Your task to perform on an android device: Search for vegetarian restaurants on Maps Image 0: 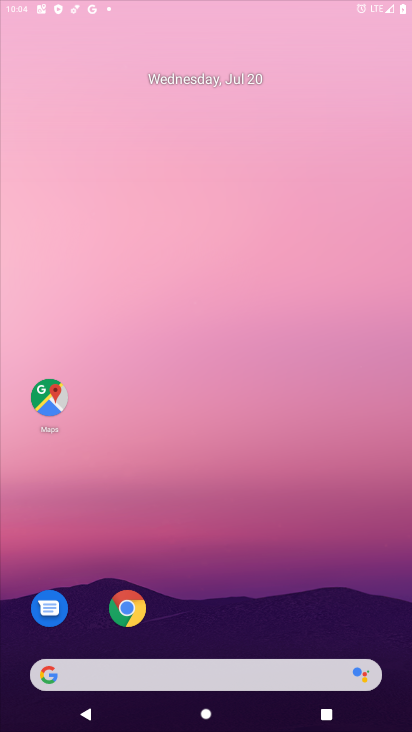
Step 0: press home button
Your task to perform on an android device: Search for vegetarian restaurants on Maps Image 1: 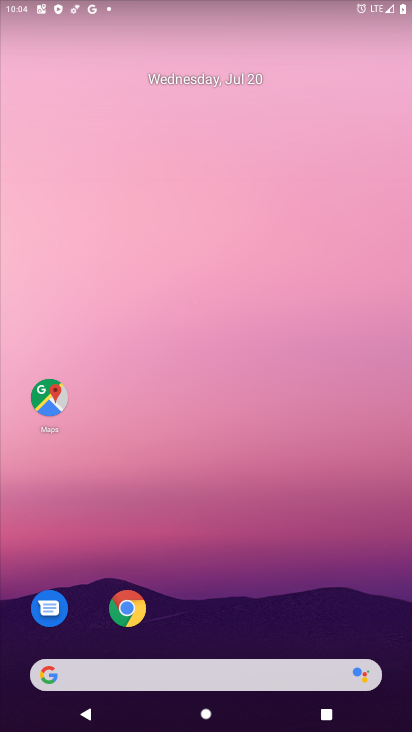
Step 1: click (48, 391)
Your task to perform on an android device: Search for vegetarian restaurants on Maps Image 2: 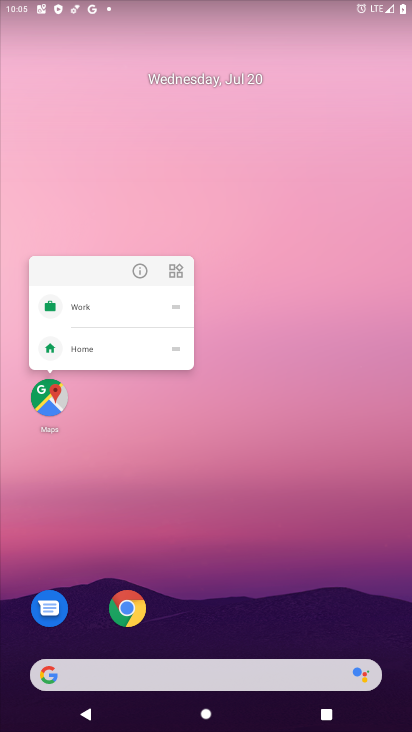
Step 2: click (46, 389)
Your task to perform on an android device: Search for vegetarian restaurants on Maps Image 3: 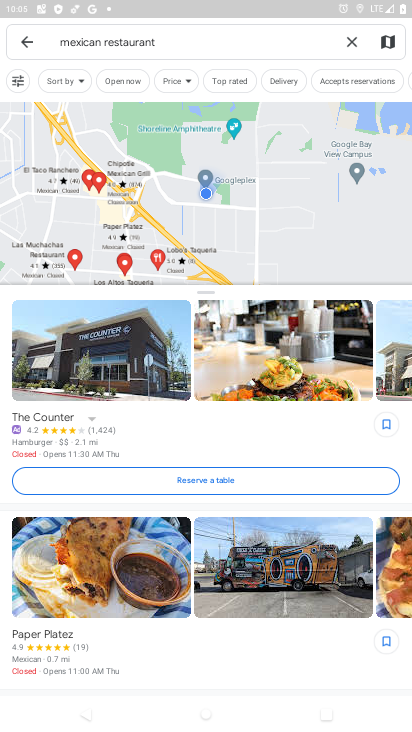
Step 3: click (351, 42)
Your task to perform on an android device: Search for vegetarian restaurants on Maps Image 4: 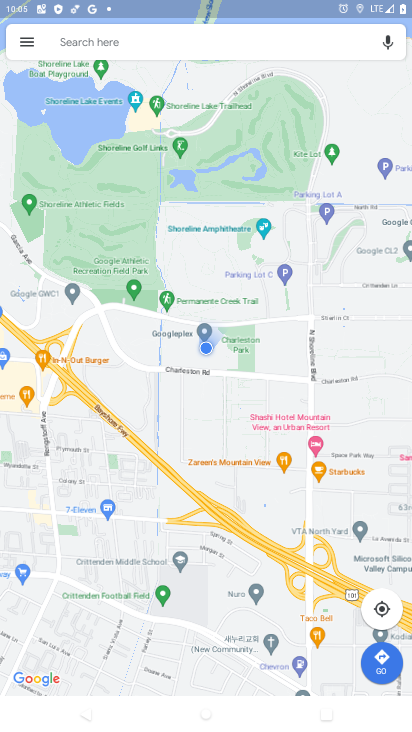
Step 4: click (112, 36)
Your task to perform on an android device: Search for vegetarian restaurants on Maps Image 5: 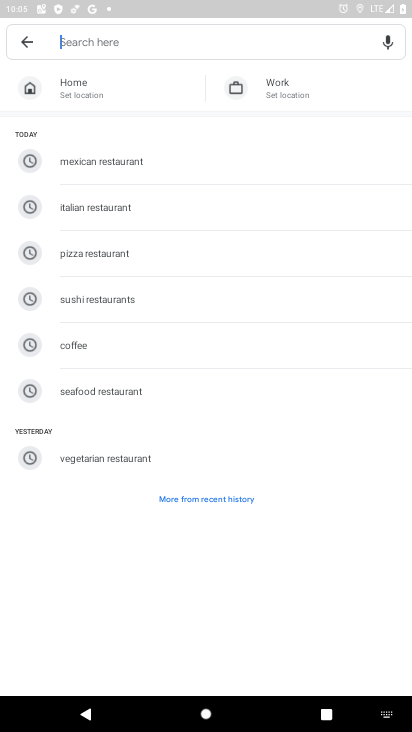
Step 5: click (109, 457)
Your task to perform on an android device: Search for vegetarian restaurants on Maps Image 6: 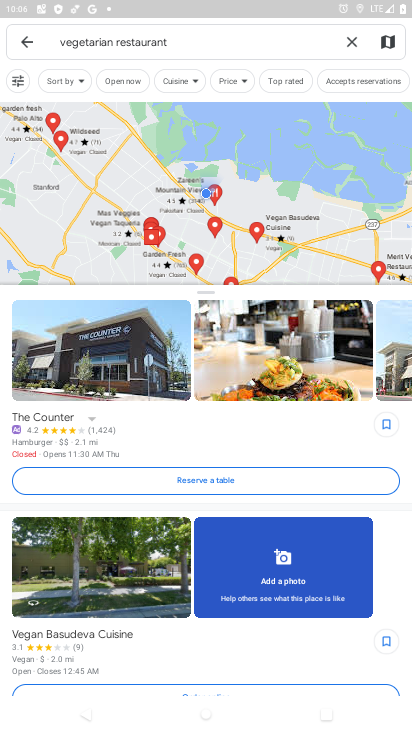
Step 6: task complete